Your task to perform on an android device: open chrome and create a bookmark for the current page Image 0: 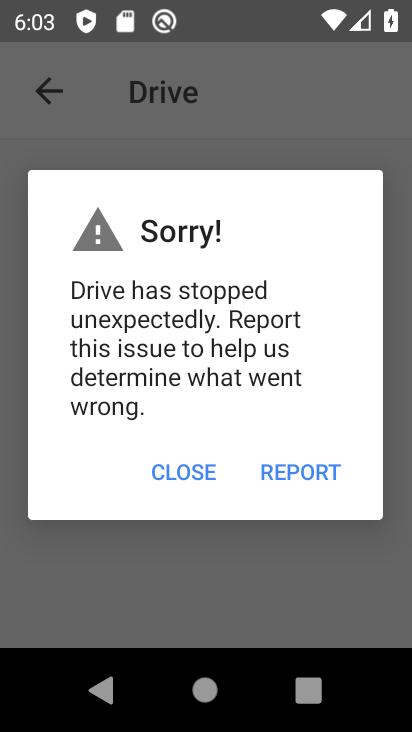
Step 0: press home button
Your task to perform on an android device: open chrome and create a bookmark for the current page Image 1: 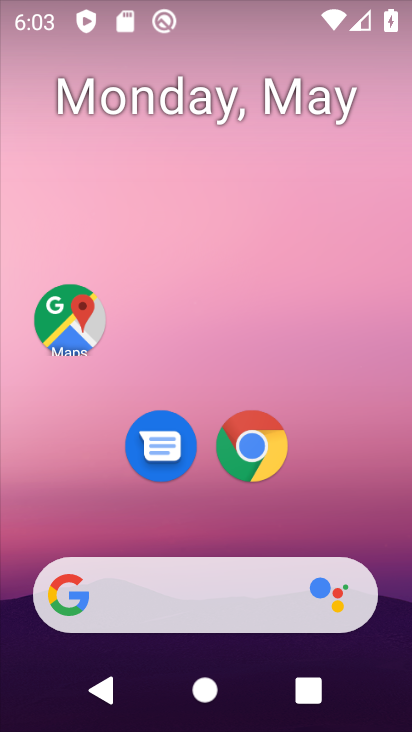
Step 1: click (252, 447)
Your task to perform on an android device: open chrome and create a bookmark for the current page Image 2: 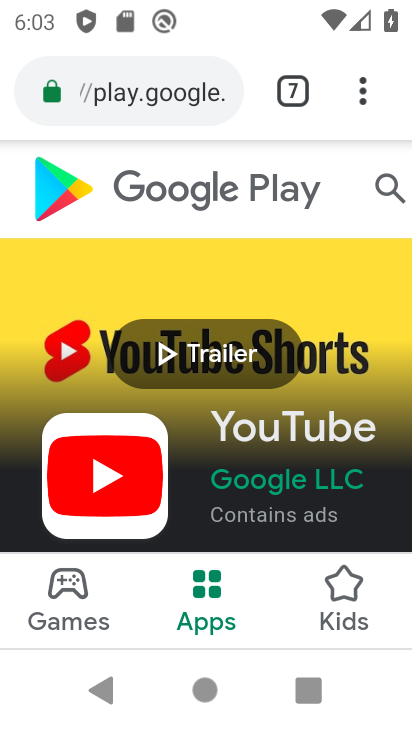
Step 2: click (359, 72)
Your task to perform on an android device: open chrome and create a bookmark for the current page Image 3: 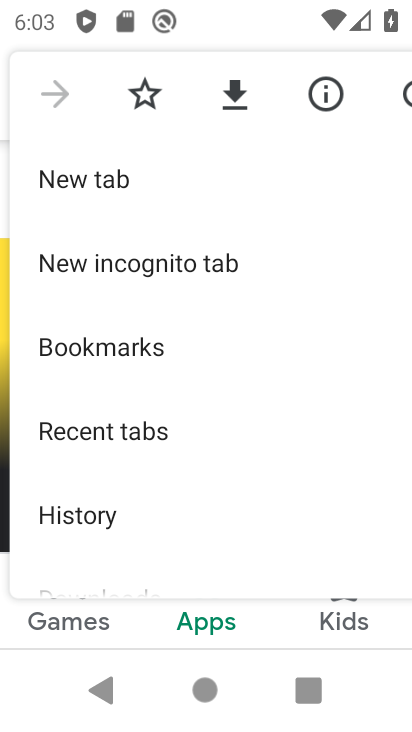
Step 3: click (137, 87)
Your task to perform on an android device: open chrome and create a bookmark for the current page Image 4: 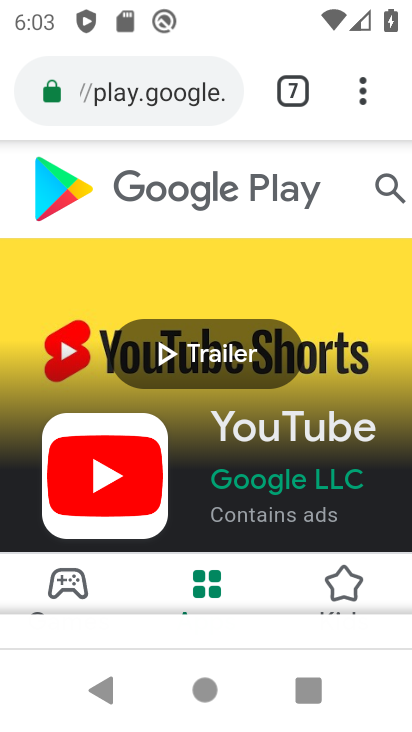
Step 4: task complete